Your task to perform on an android device: Open the map Image 0: 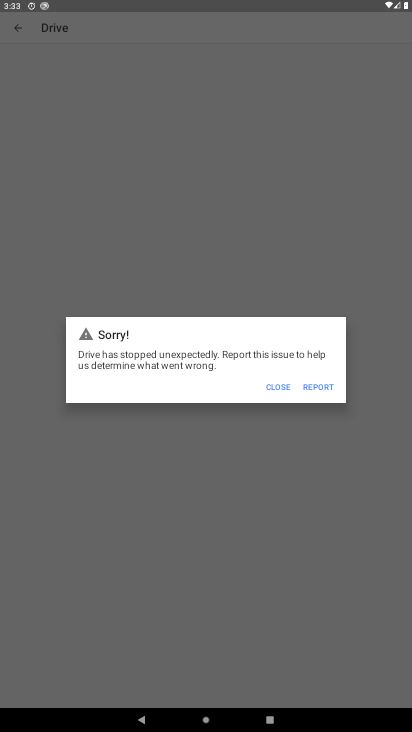
Step 0: press home button
Your task to perform on an android device: Open the map Image 1: 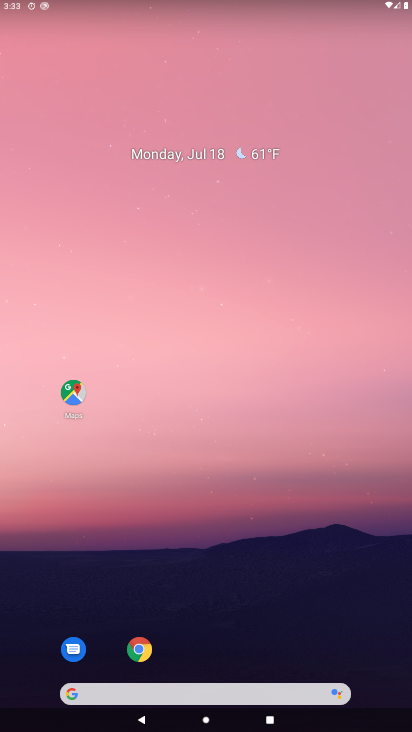
Step 1: click (68, 386)
Your task to perform on an android device: Open the map Image 2: 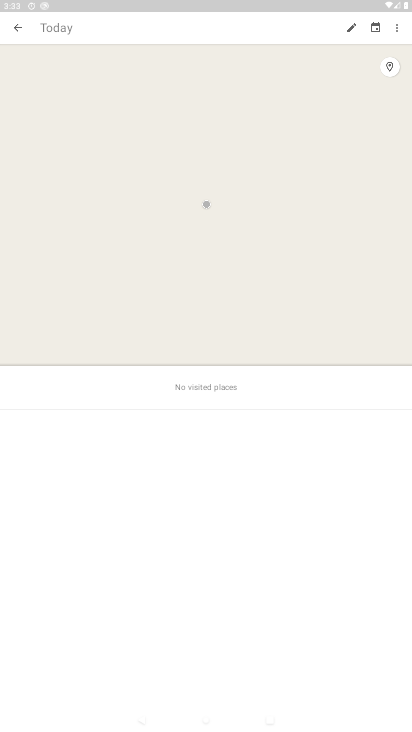
Step 2: click (13, 30)
Your task to perform on an android device: Open the map Image 3: 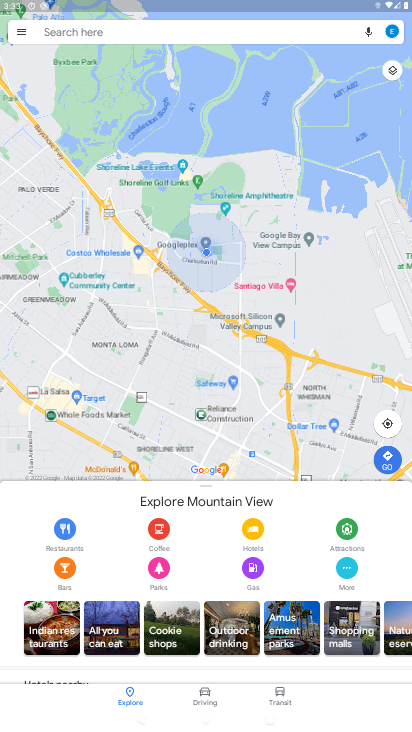
Step 3: click (16, 31)
Your task to perform on an android device: Open the map Image 4: 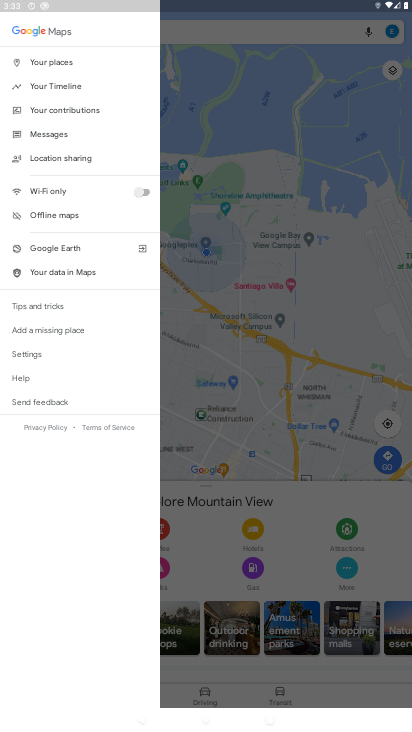
Step 4: click (175, 24)
Your task to perform on an android device: Open the map Image 5: 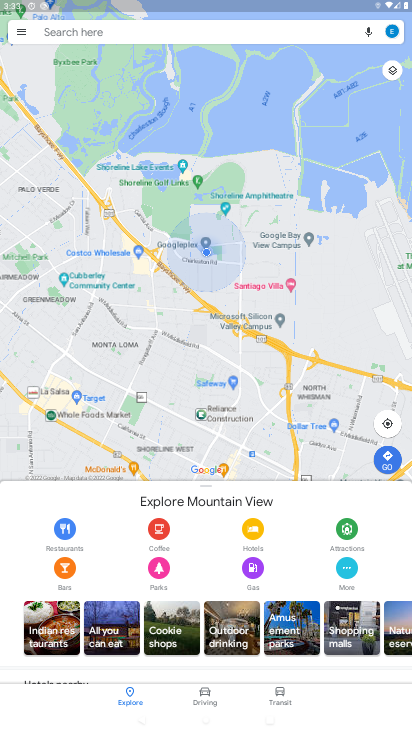
Step 5: task complete